Your task to perform on an android device: turn off location Image 0: 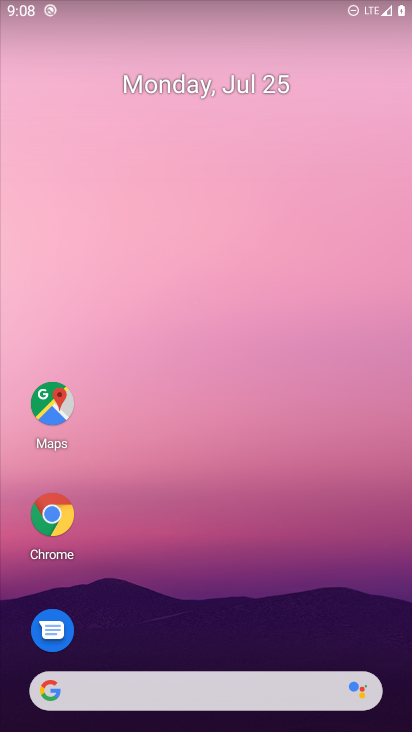
Step 0: drag from (29, 669) to (187, 252)
Your task to perform on an android device: turn off location Image 1: 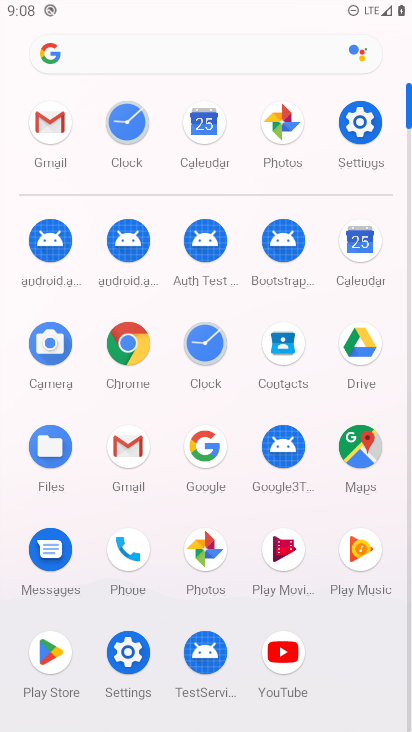
Step 1: click (132, 652)
Your task to perform on an android device: turn off location Image 2: 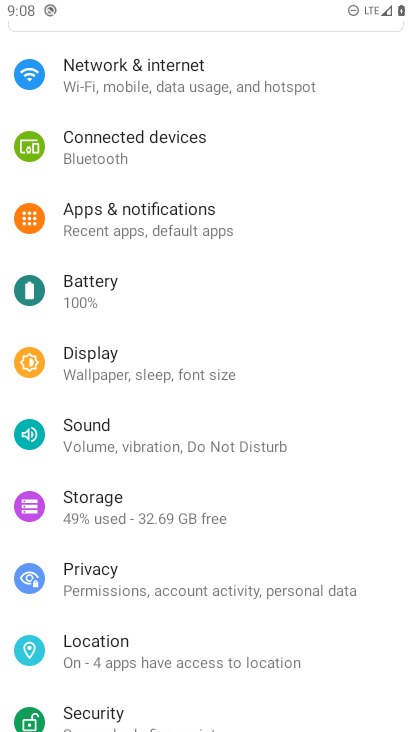
Step 2: click (85, 644)
Your task to perform on an android device: turn off location Image 3: 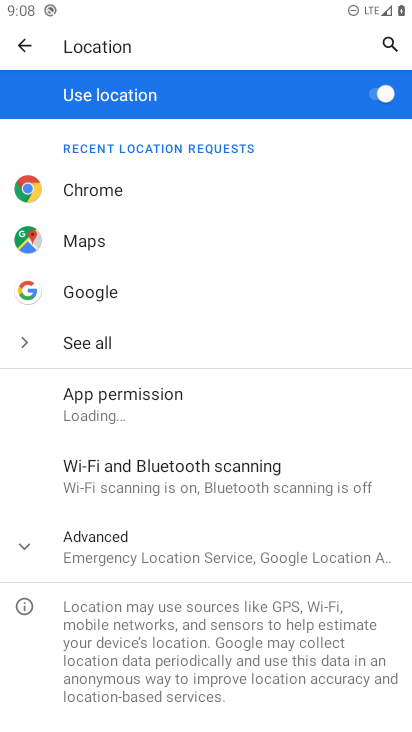
Step 3: click (386, 82)
Your task to perform on an android device: turn off location Image 4: 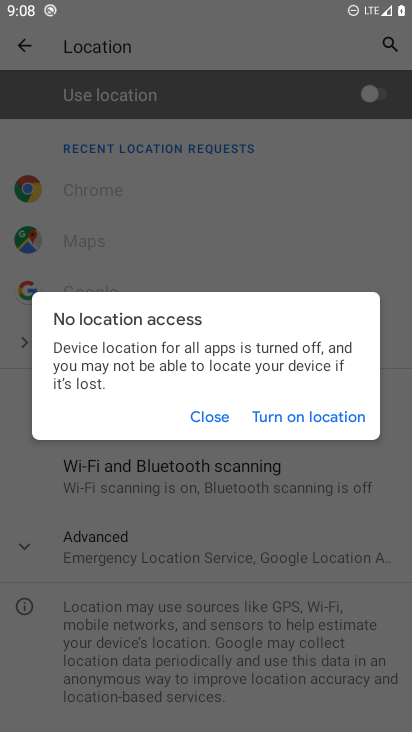
Step 4: task complete